Your task to perform on an android device: toggle data saver in the chrome app Image 0: 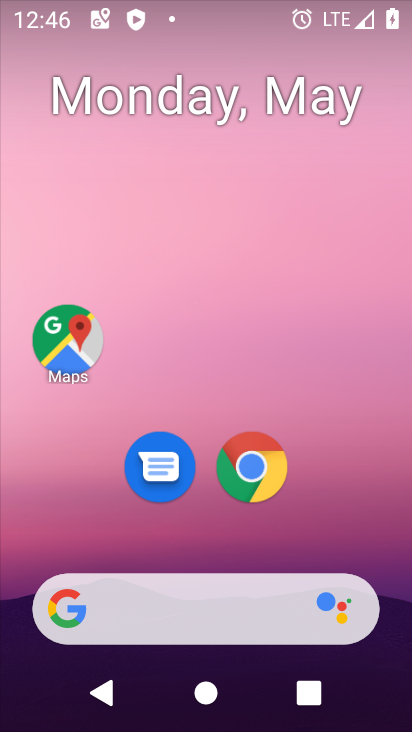
Step 0: click (258, 475)
Your task to perform on an android device: toggle data saver in the chrome app Image 1: 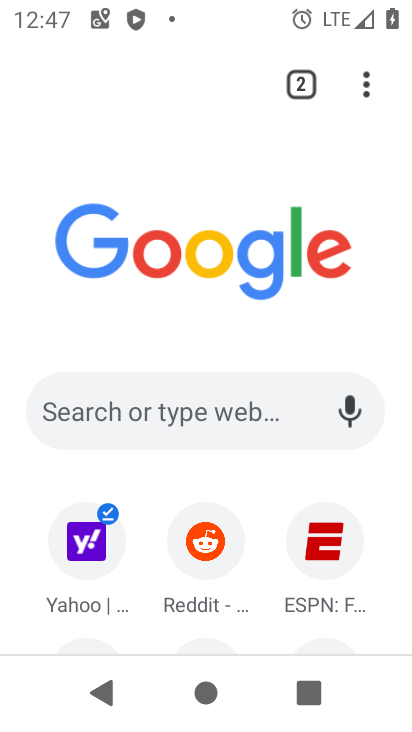
Step 1: click (369, 86)
Your task to perform on an android device: toggle data saver in the chrome app Image 2: 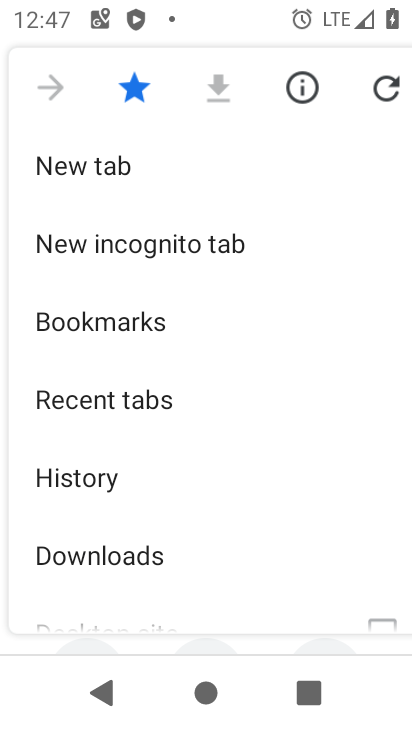
Step 2: drag from (198, 493) to (218, 109)
Your task to perform on an android device: toggle data saver in the chrome app Image 3: 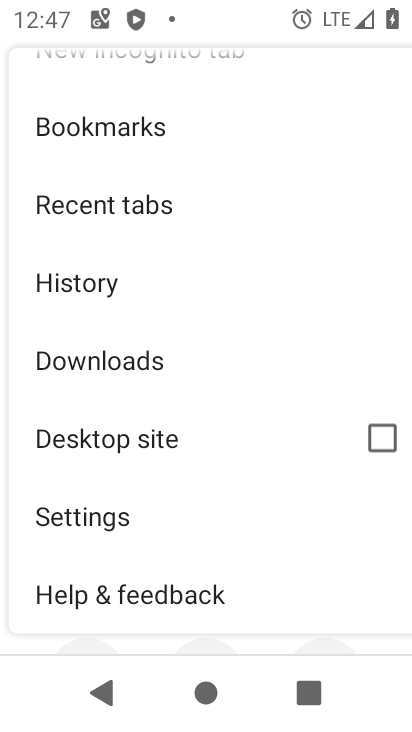
Step 3: click (119, 512)
Your task to perform on an android device: toggle data saver in the chrome app Image 4: 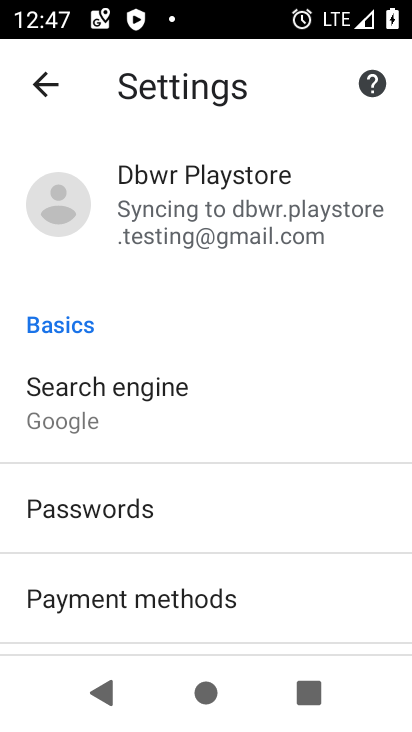
Step 4: drag from (197, 535) to (192, 77)
Your task to perform on an android device: toggle data saver in the chrome app Image 5: 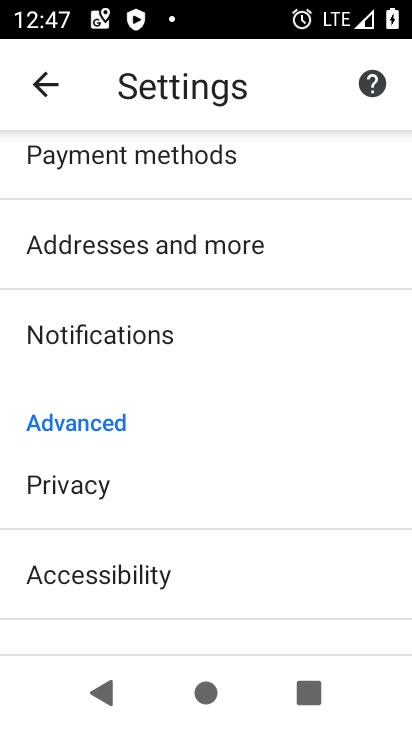
Step 5: drag from (288, 581) to (290, 82)
Your task to perform on an android device: toggle data saver in the chrome app Image 6: 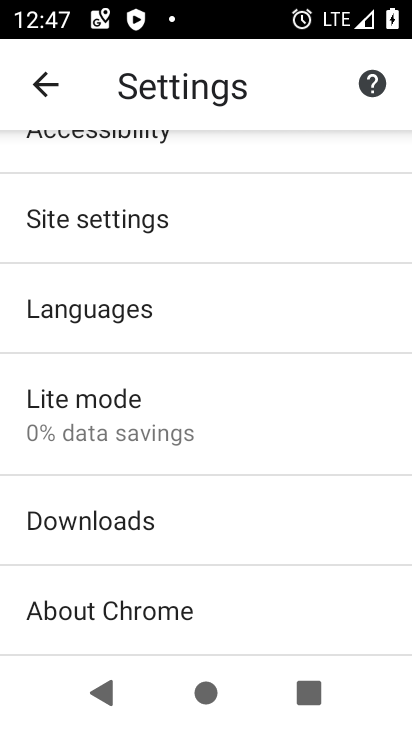
Step 6: click (86, 415)
Your task to perform on an android device: toggle data saver in the chrome app Image 7: 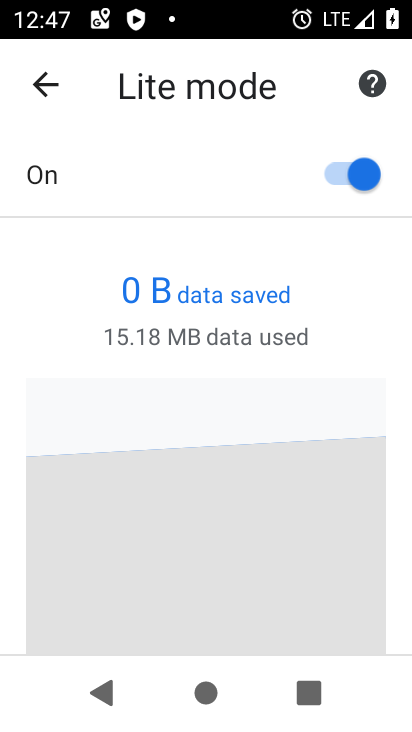
Step 7: click (377, 179)
Your task to perform on an android device: toggle data saver in the chrome app Image 8: 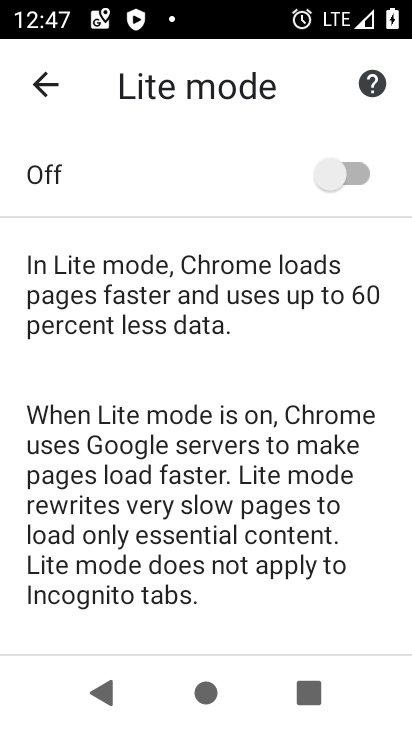
Step 8: task complete